Your task to perform on an android device: Is it going to rain tomorrow? Image 0: 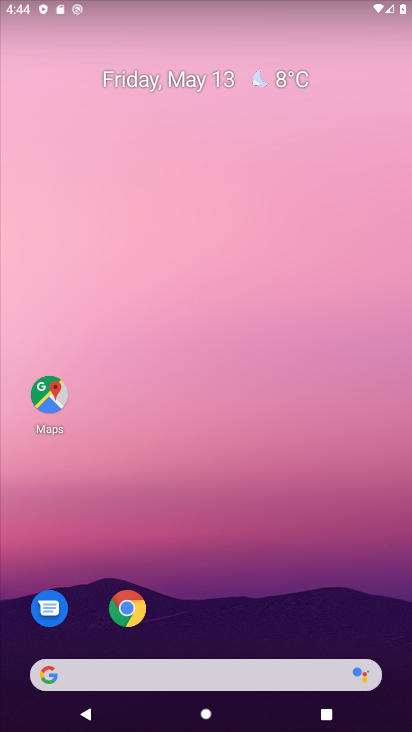
Step 0: drag from (270, 521) to (186, 77)
Your task to perform on an android device: Is it going to rain tomorrow? Image 1: 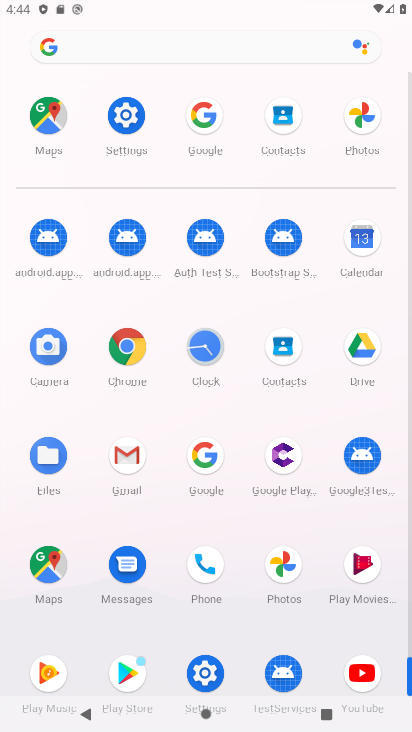
Step 1: click (203, 453)
Your task to perform on an android device: Is it going to rain tomorrow? Image 2: 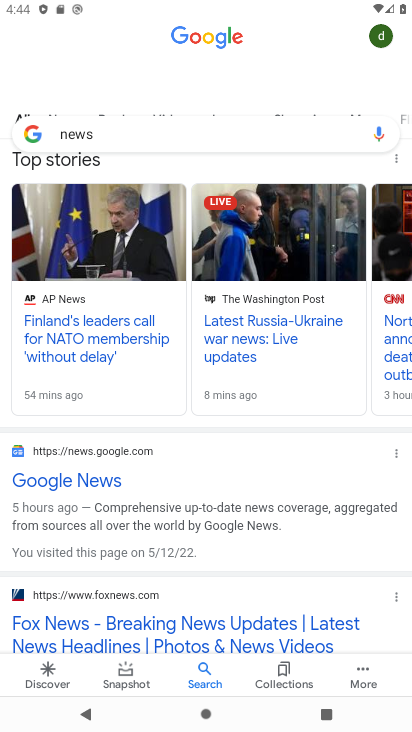
Step 2: click (195, 120)
Your task to perform on an android device: Is it going to rain tomorrow? Image 3: 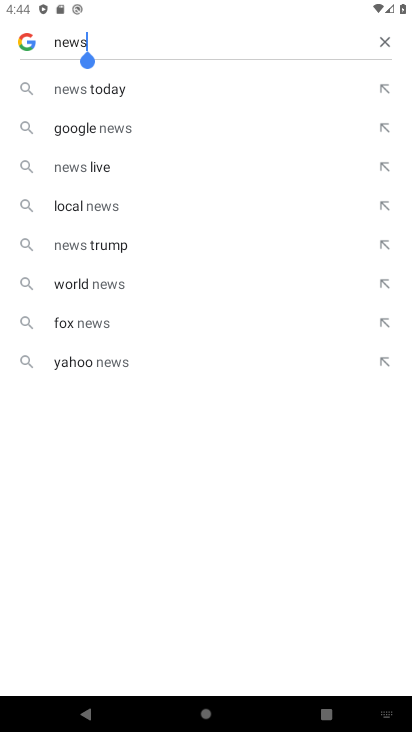
Step 3: click (382, 33)
Your task to perform on an android device: Is it going to rain tomorrow? Image 4: 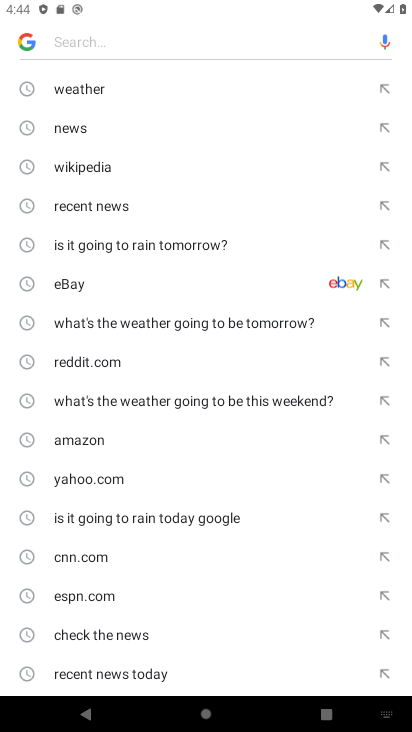
Step 4: click (199, 239)
Your task to perform on an android device: Is it going to rain tomorrow? Image 5: 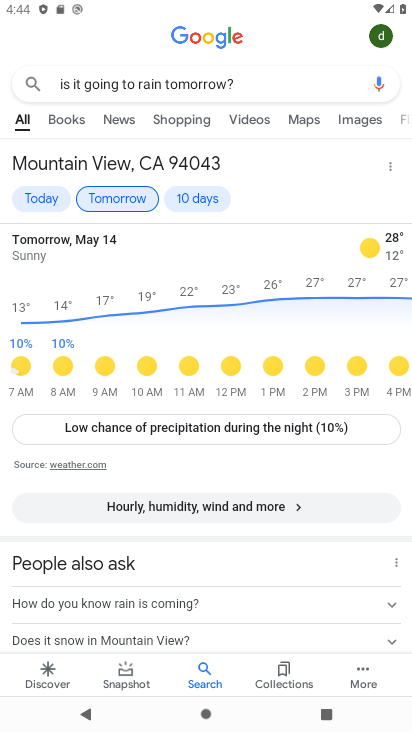
Step 5: task complete